Your task to perform on an android device: Go to Amazon Image 0: 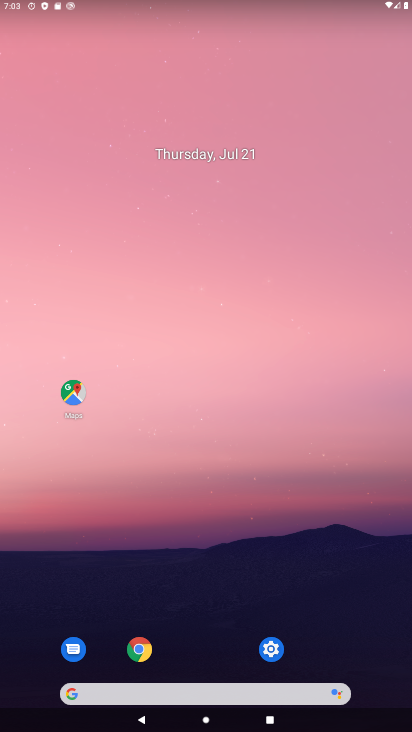
Step 0: click (143, 654)
Your task to perform on an android device: Go to Amazon Image 1: 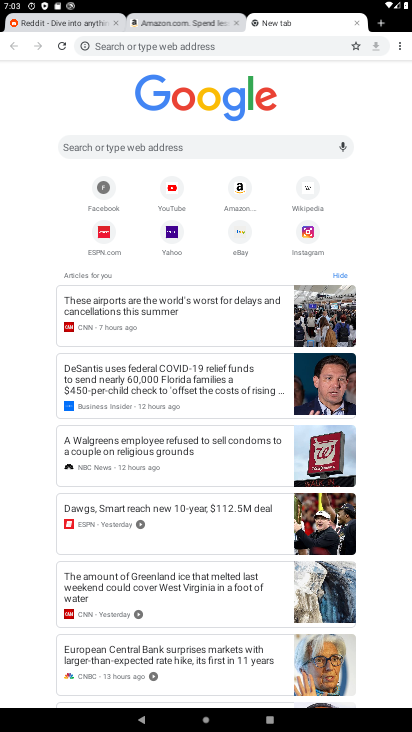
Step 1: click (237, 188)
Your task to perform on an android device: Go to Amazon Image 2: 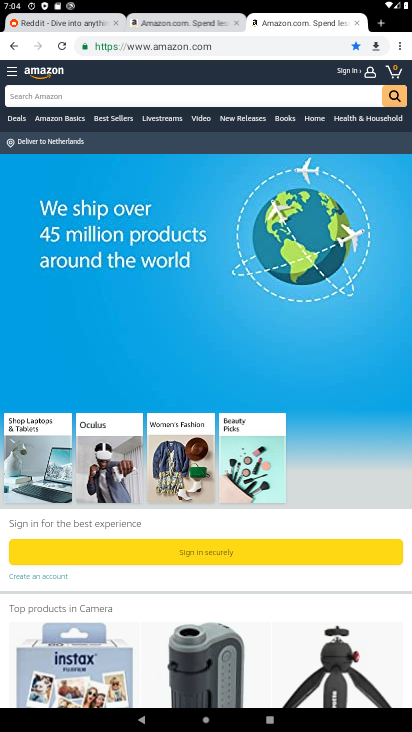
Step 2: task complete